Your task to perform on an android device: Open sound settings Image 0: 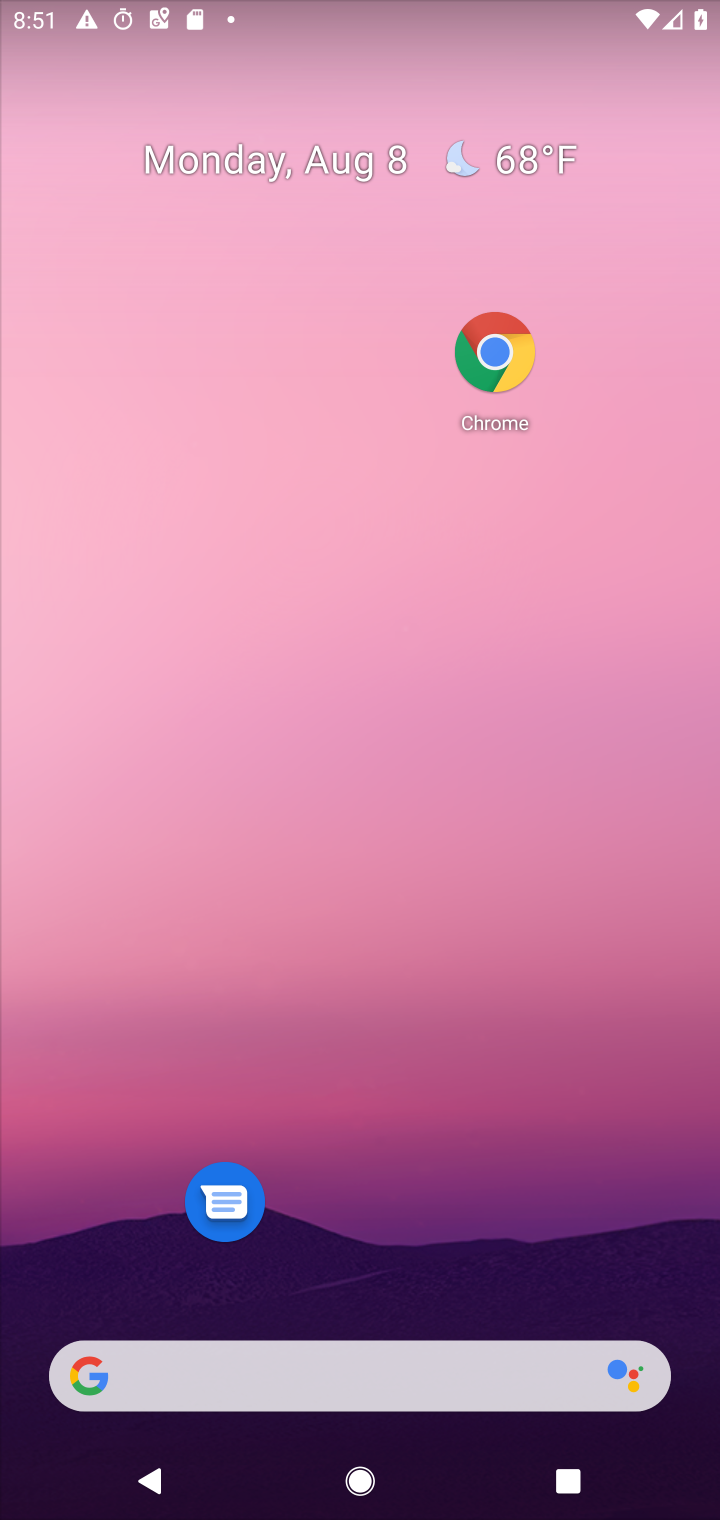
Step 0: drag from (339, 1419) to (398, 731)
Your task to perform on an android device: Open sound settings Image 1: 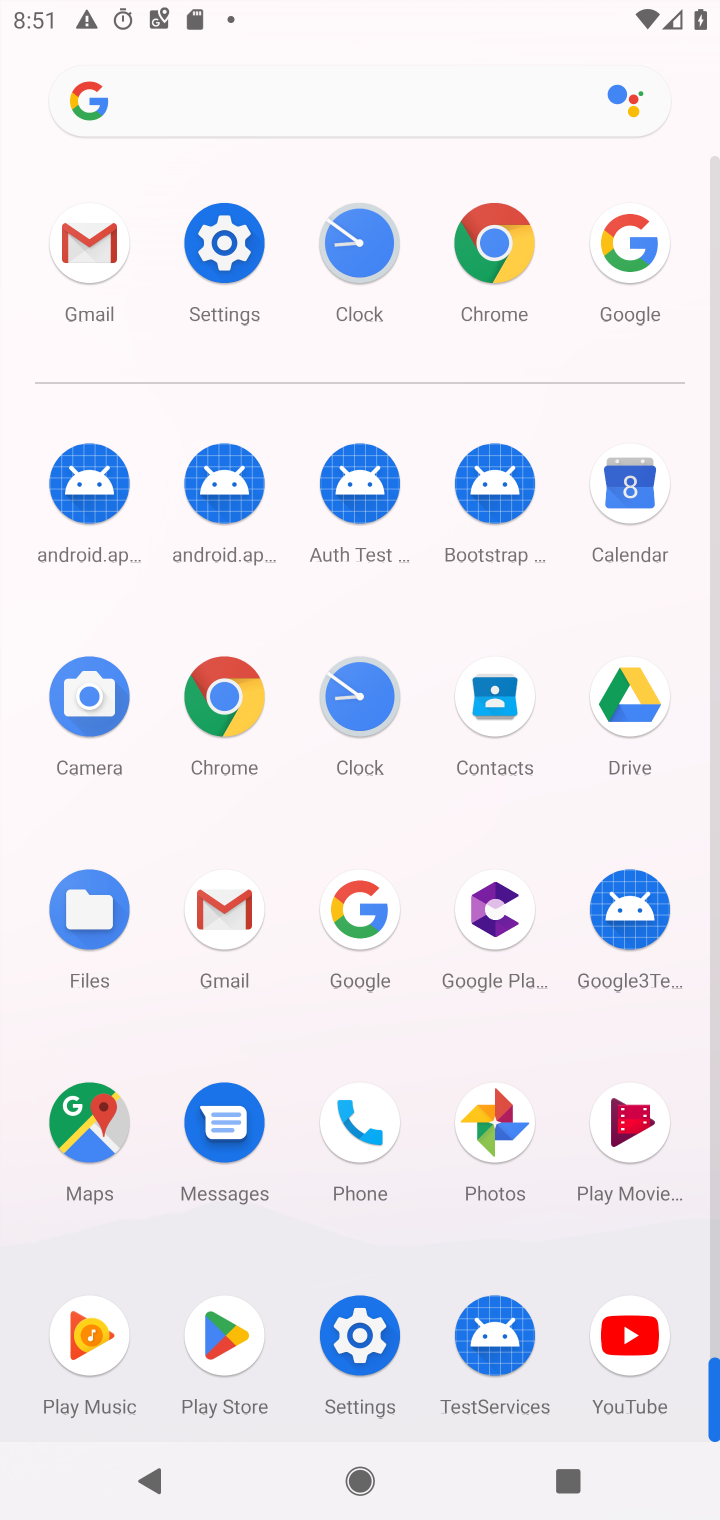
Step 1: click (234, 287)
Your task to perform on an android device: Open sound settings Image 2: 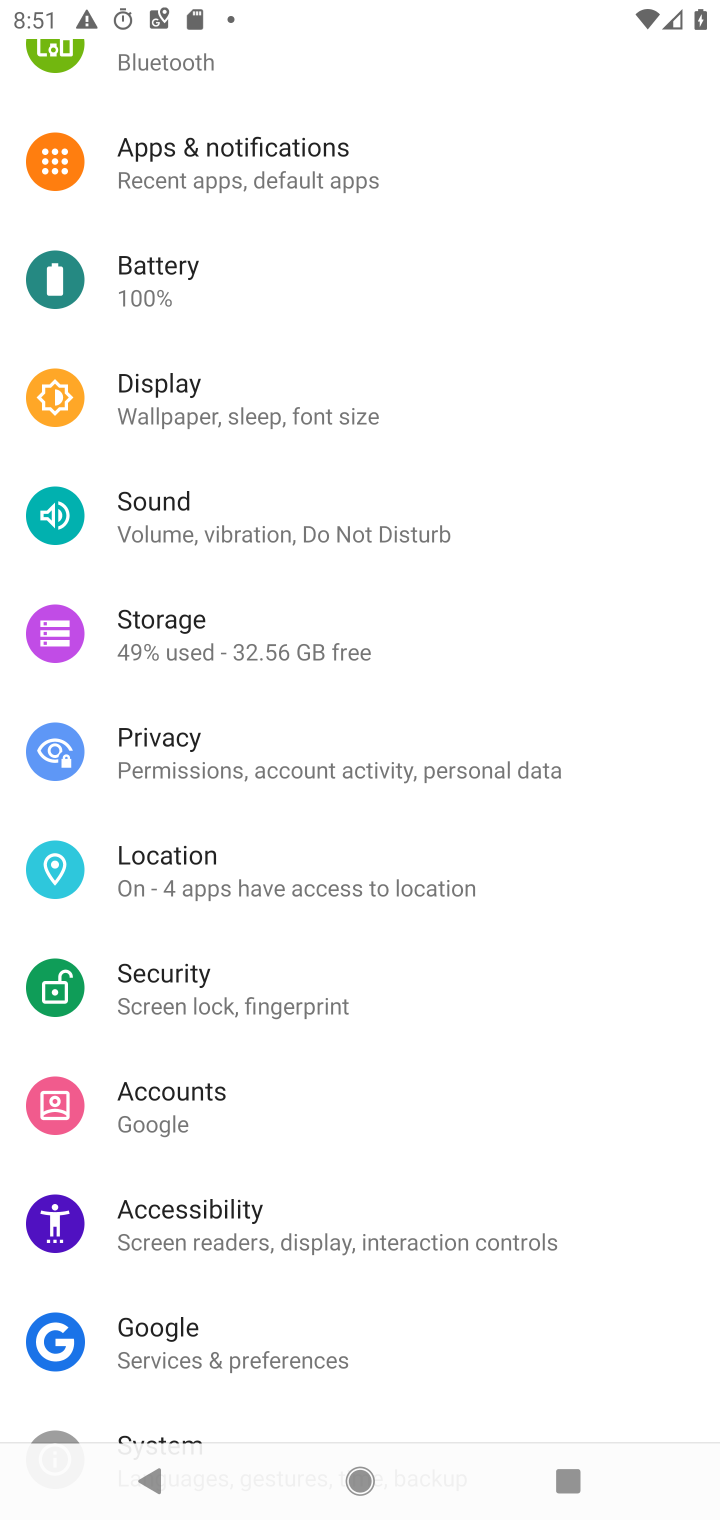
Step 2: click (210, 523)
Your task to perform on an android device: Open sound settings Image 3: 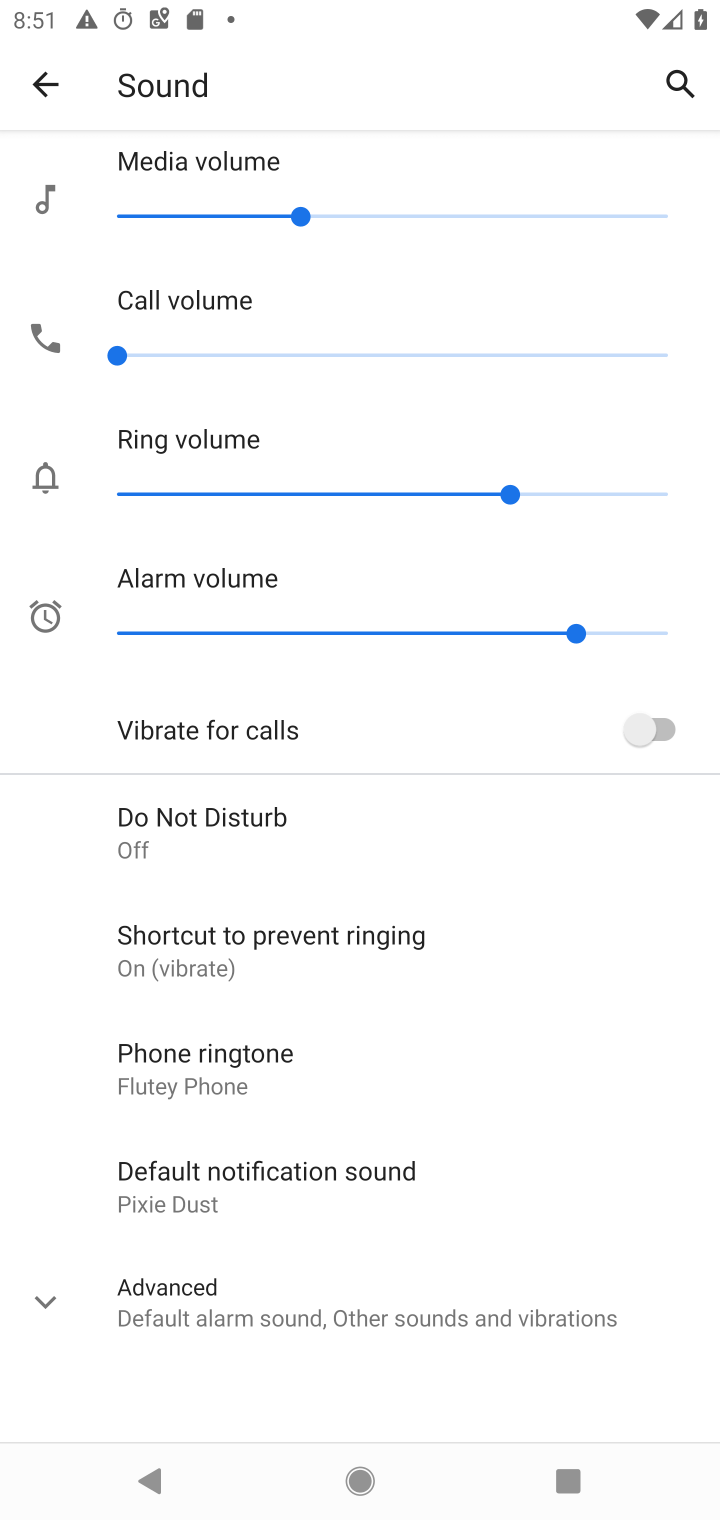
Step 3: task complete